Your task to perform on an android device: Do I have any events this weekend? Image 0: 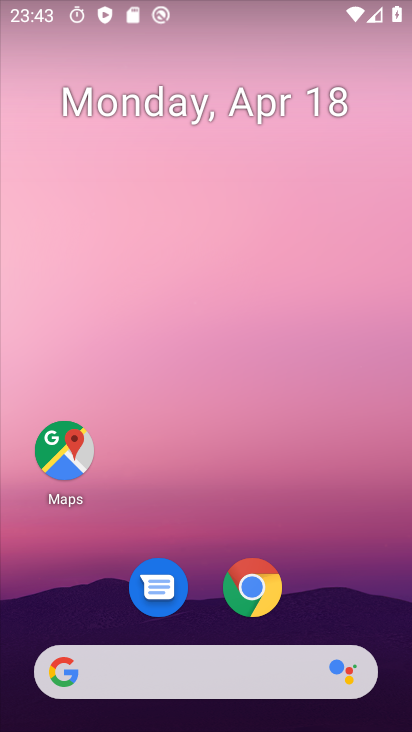
Step 0: drag from (374, 566) to (362, 187)
Your task to perform on an android device: Do I have any events this weekend? Image 1: 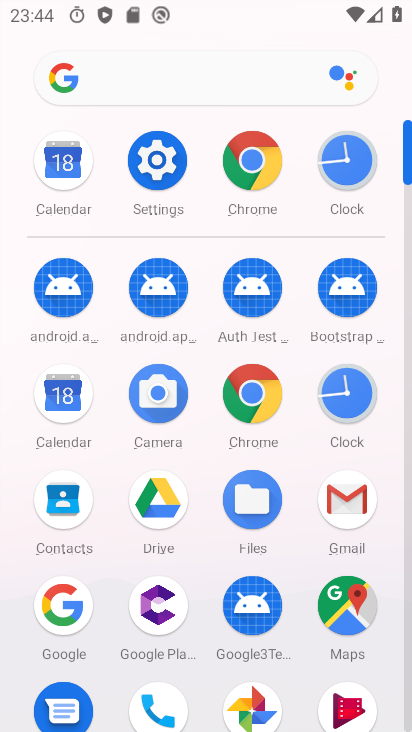
Step 1: click (75, 399)
Your task to perform on an android device: Do I have any events this weekend? Image 2: 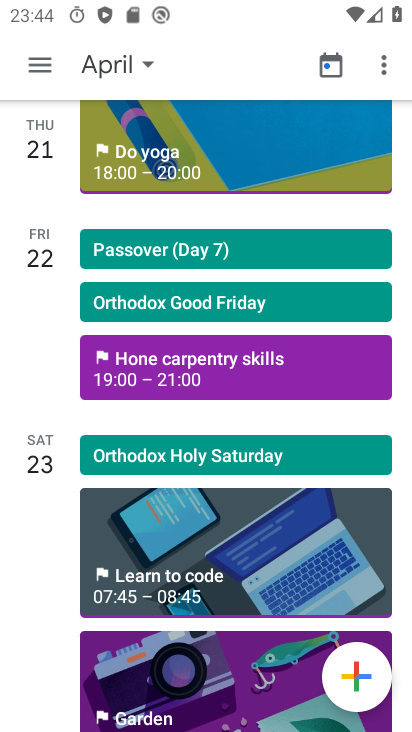
Step 2: drag from (81, 216) to (90, 671)
Your task to perform on an android device: Do I have any events this weekend? Image 3: 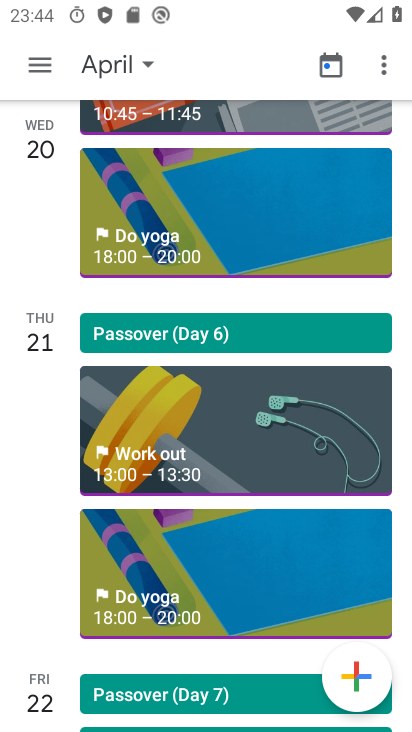
Step 3: click (106, 65)
Your task to perform on an android device: Do I have any events this weekend? Image 4: 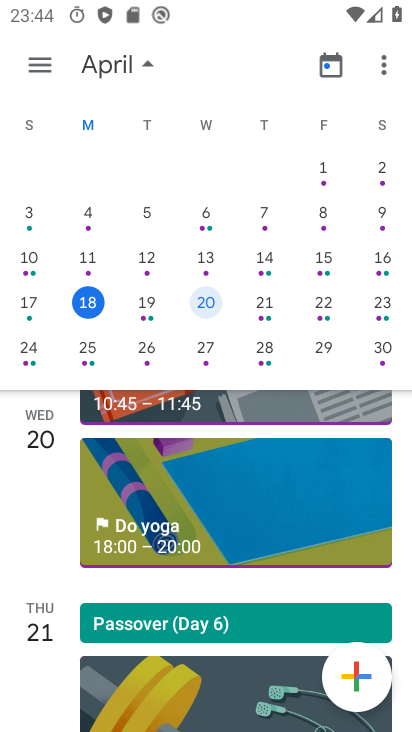
Step 4: click (36, 343)
Your task to perform on an android device: Do I have any events this weekend? Image 5: 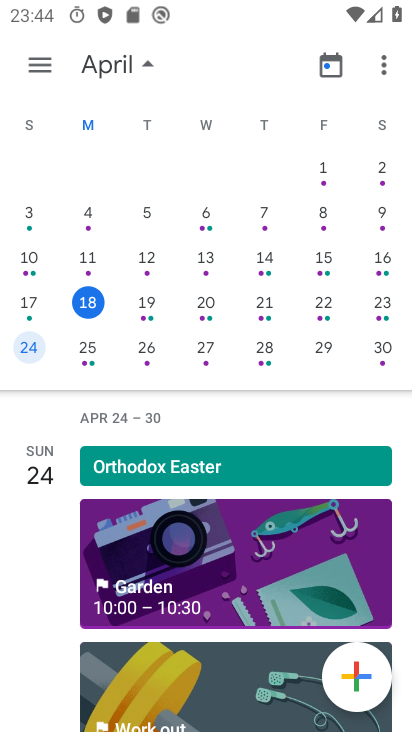
Step 5: task complete